Your task to perform on an android device: Search for "macbook pro 13 inch" on target.com, select the first entry, add it to the cart, then select checkout. Image 0: 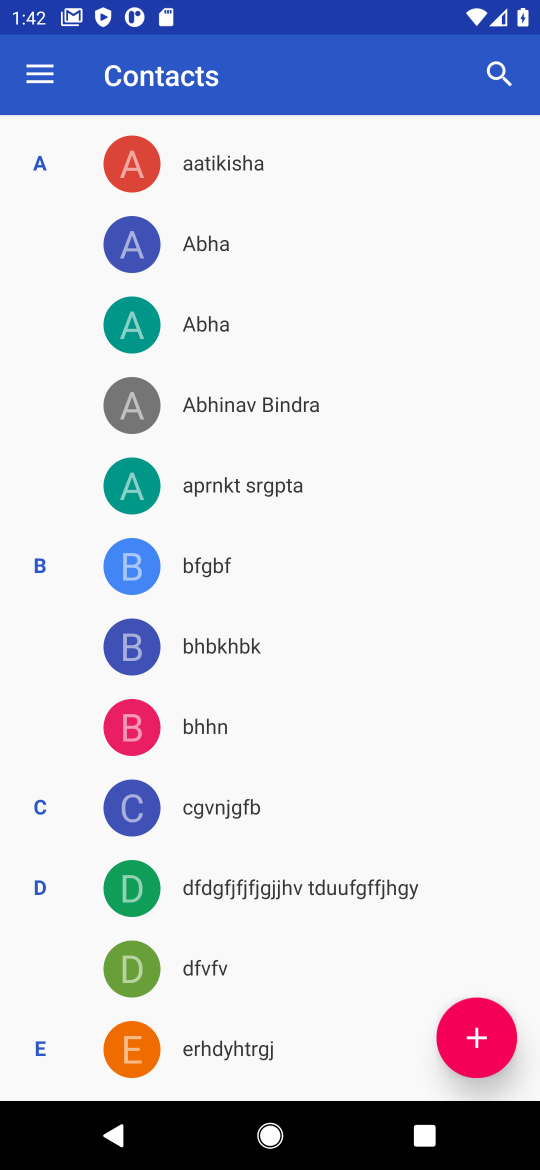
Step 0: press home button
Your task to perform on an android device: Search for "macbook pro 13 inch" on target.com, select the first entry, add it to the cart, then select checkout. Image 1: 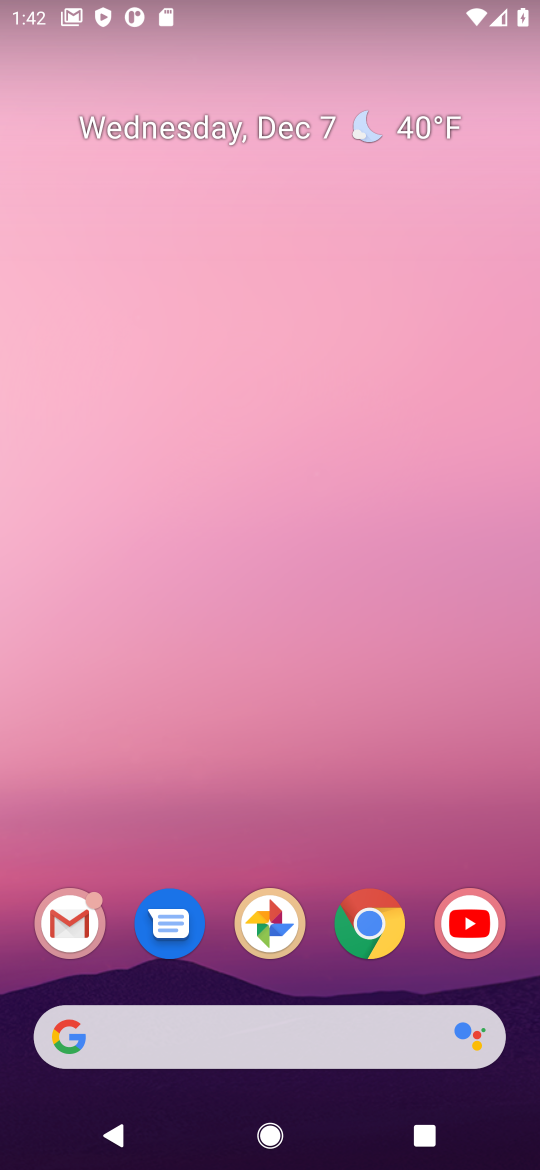
Step 1: click (365, 915)
Your task to perform on an android device: Search for "macbook pro 13 inch" on target.com, select the first entry, add it to the cart, then select checkout. Image 2: 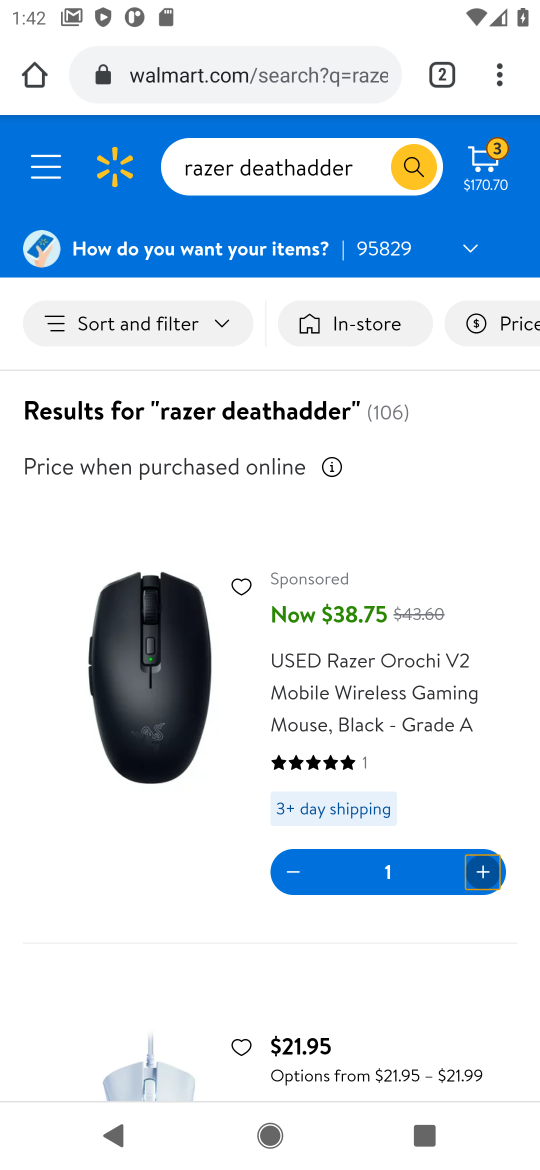
Step 2: click (250, 67)
Your task to perform on an android device: Search for "macbook pro 13 inch" on target.com, select the first entry, add it to the cart, then select checkout. Image 3: 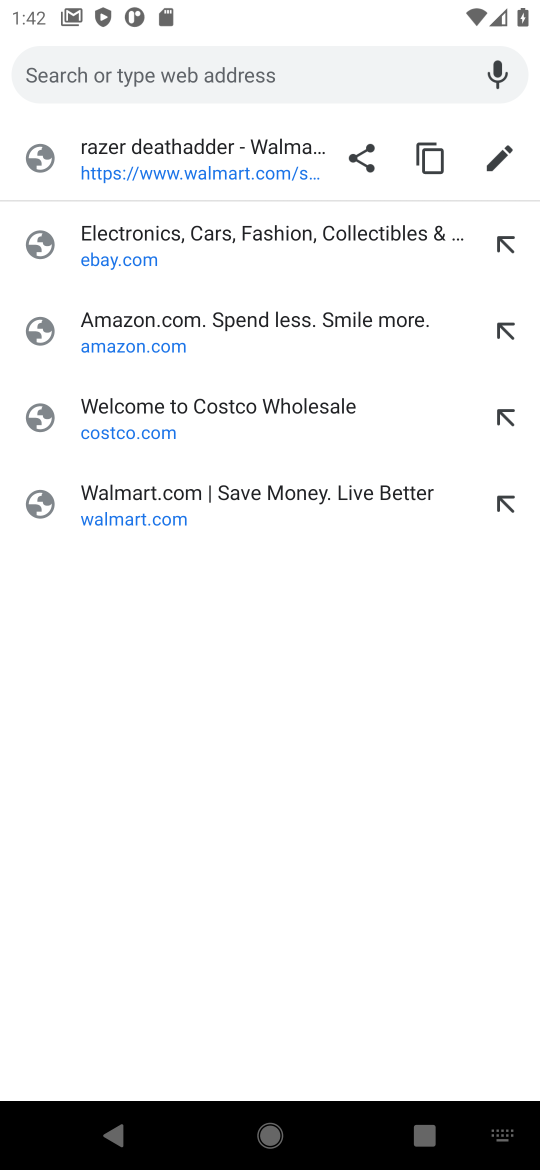
Step 3: type "target.com"
Your task to perform on an android device: Search for "macbook pro 13 inch" on target.com, select the first entry, add it to the cart, then select checkout. Image 4: 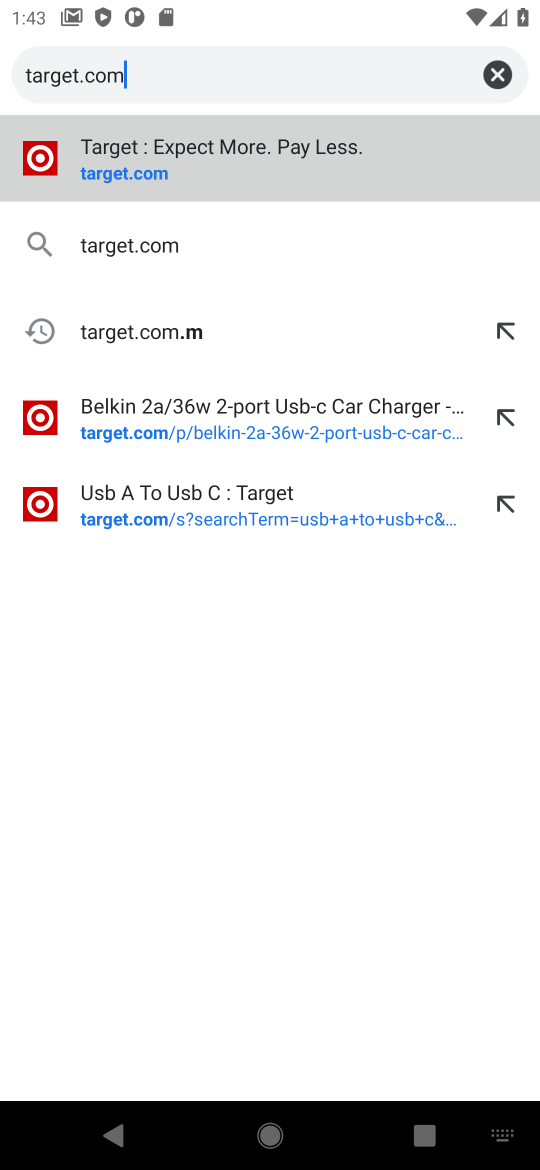
Step 4: click (285, 166)
Your task to perform on an android device: Search for "macbook pro 13 inch" on target.com, select the first entry, add it to the cart, then select checkout. Image 5: 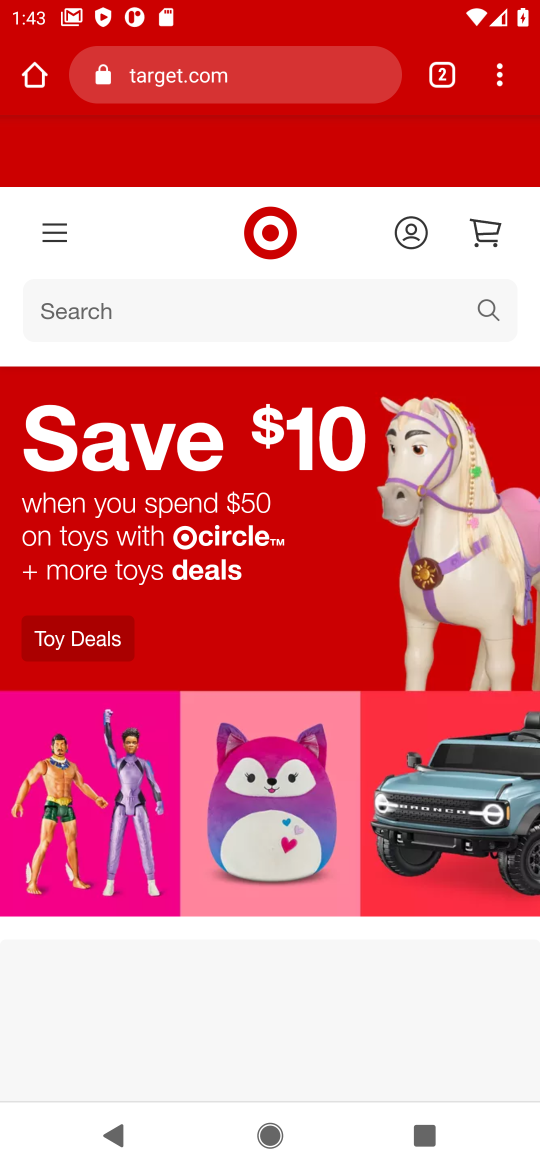
Step 5: click (382, 315)
Your task to perform on an android device: Search for "macbook pro 13 inch" on target.com, select the first entry, add it to the cart, then select checkout. Image 6: 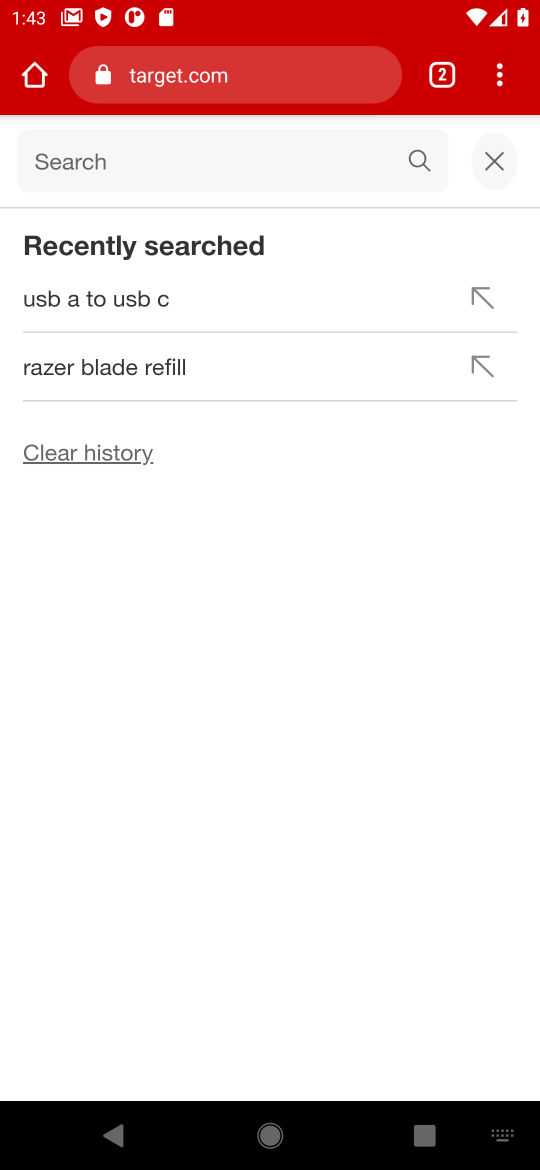
Step 6: type "macbook pro 13 inch"
Your task to perform on an android device: Search for "macbook pro 13 inch" on target.com, select the first entry, add it to the cart, then select checkout. Image 7: 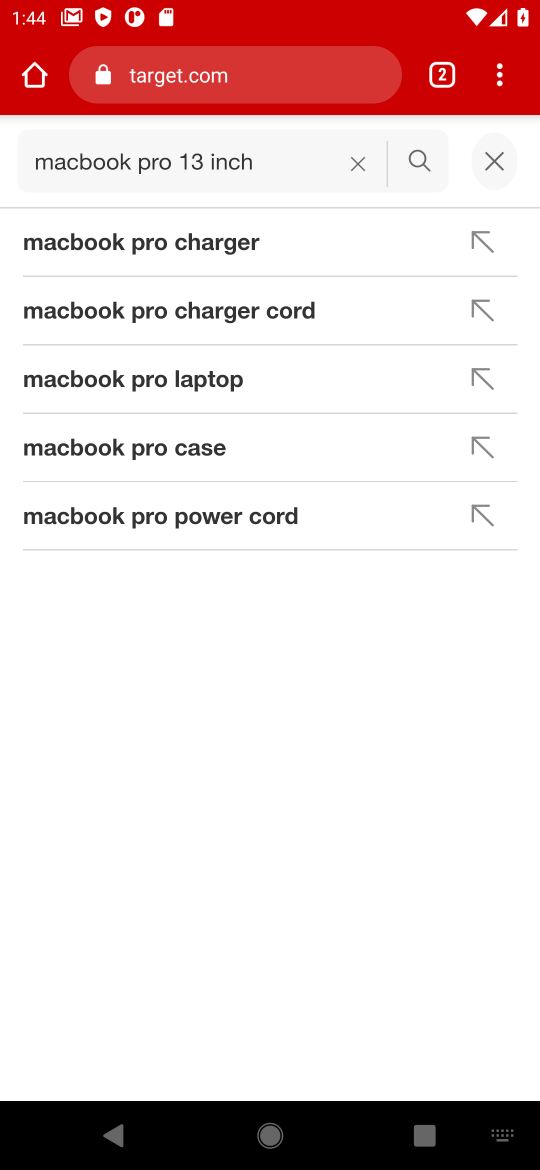
Step 7: click (95, 237)
Your task to perform on an android device: Search for "macbook pro 13 inch" on target.com, select the first entry, add it to the cart, then select checkout. Image 8: 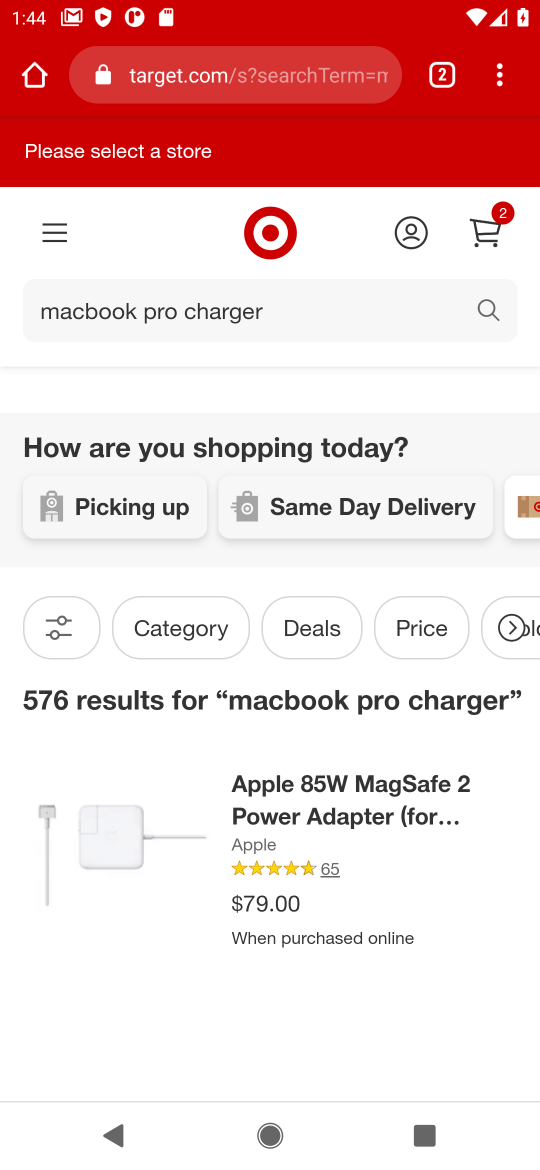
Step 8: click (117, 877)
Your task to perform on an android device: Search for "macbook pro 13 inch" on target.com, select the first entry, add it to the cart, then select checkout. Image 9: 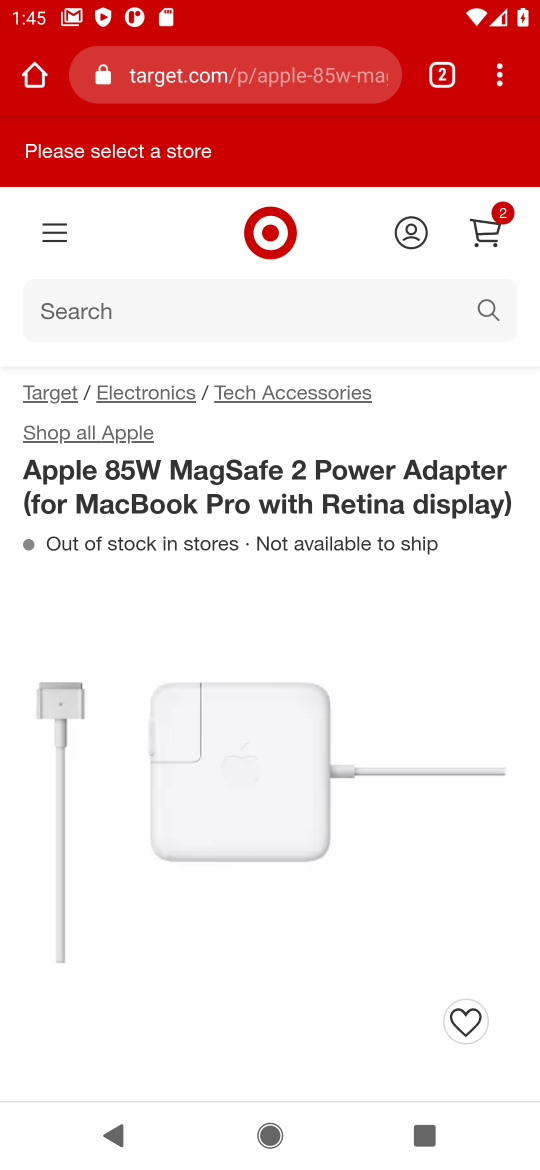
Step 9: drag from (307, 1008) to (348, 271)
Your task to perform on an android device: Search for "macbook pro 13 inch" on target.com, select the first entry, add it to the cart, then select checkout. Image 10: 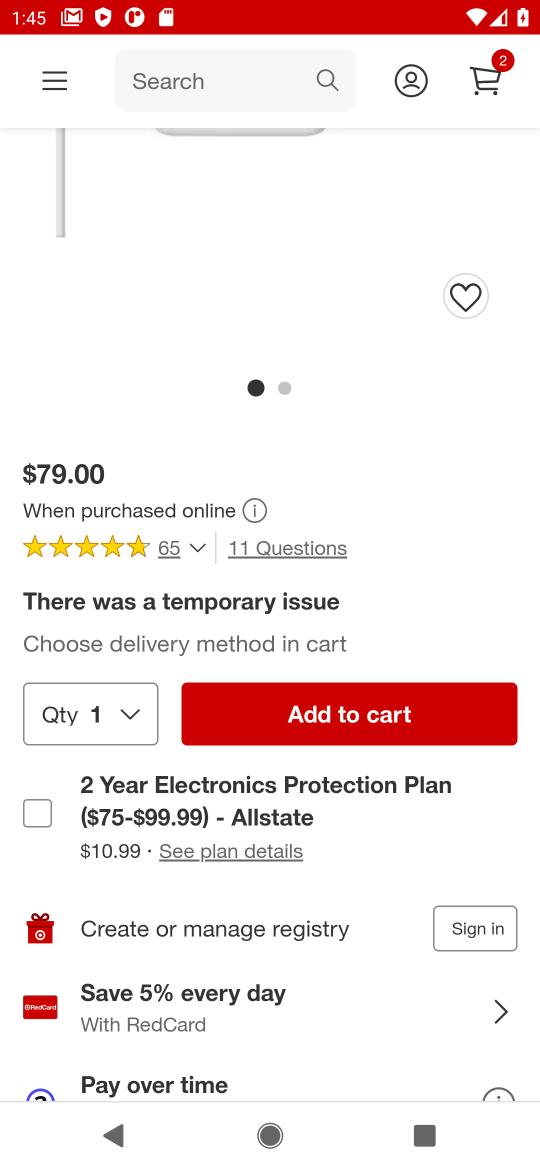
Step 10: click (323, 707)
Your task to perform on an android device: Search for "macbook pro 13 inch" on target.com, select the first entry, add it to the cart, then select checkout. Image 11: 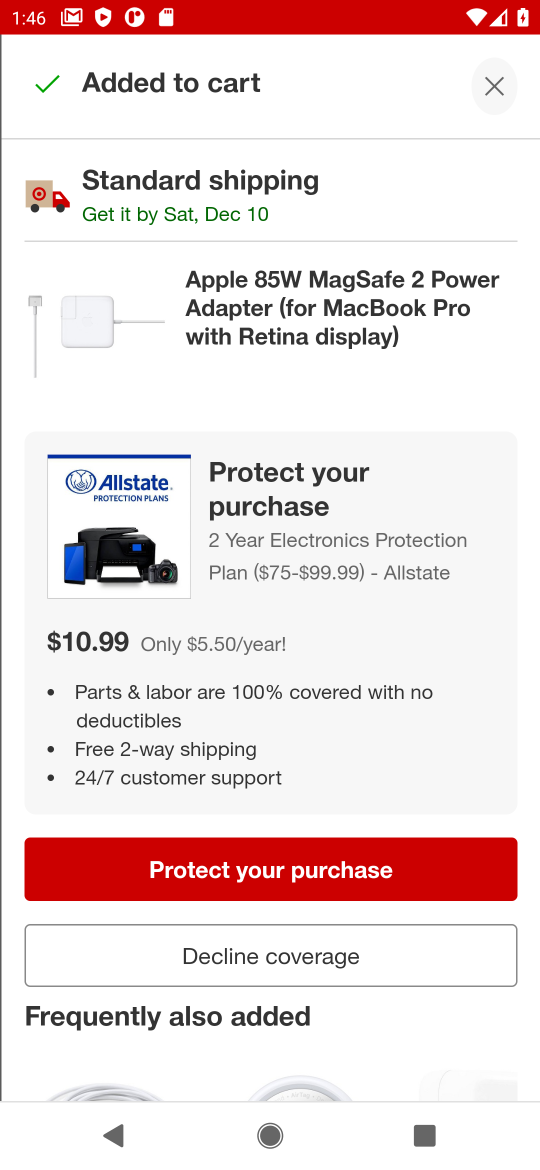
Step 11: task complete